Your task to perform on an android device: Open battery settings Image 0: 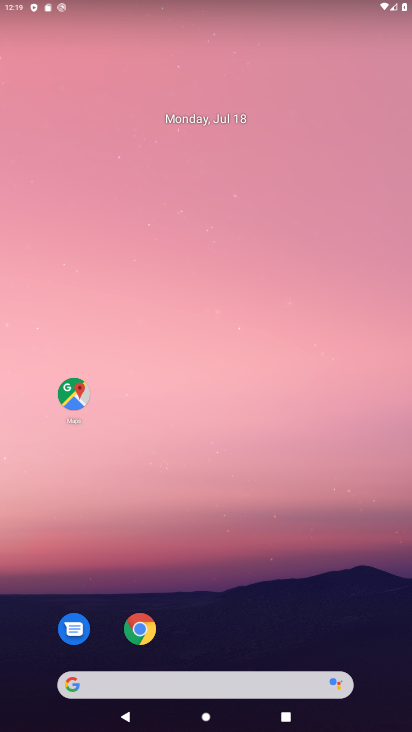
Step 0: drag from (241, 547) to (134, 108)
Your task to perform on an android device: Open battery settings Image 1: 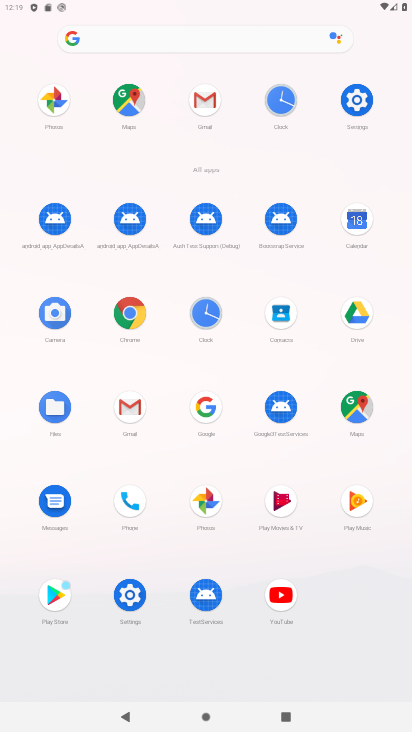
Step 1: click (360, 107)
Your task to perform on an android device: Open battery settings Image 2: 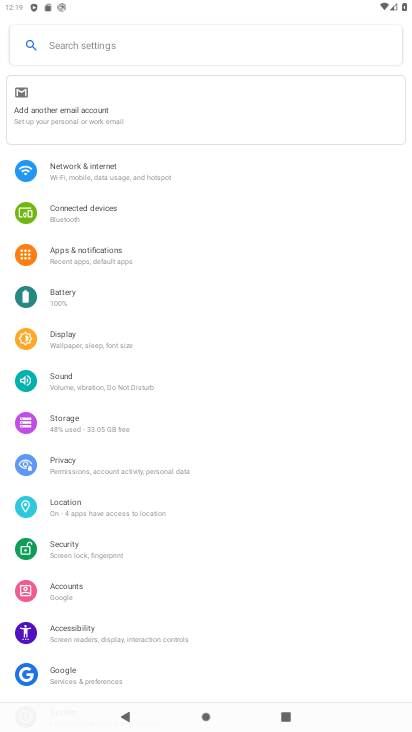
Step 2: click (59, 292)
Your task to perform on an android device: Open battery settings Image 3: 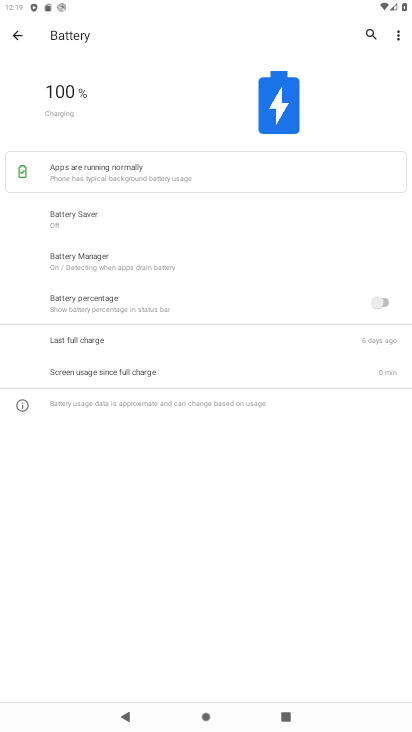
Step 3: task complete